Your task to perform on an android device: set an alarm Image 0: 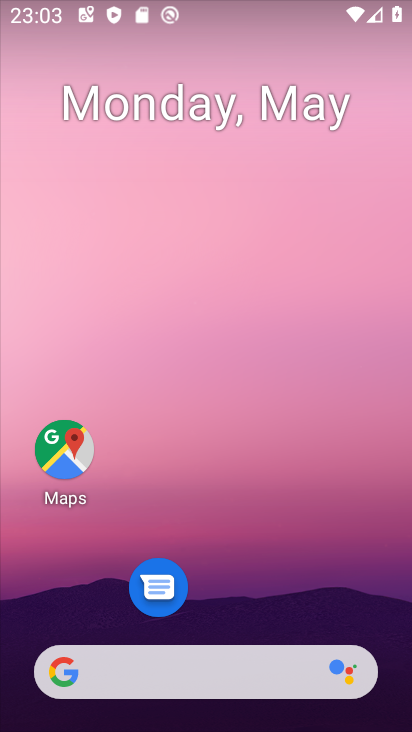
Step 0: drag from (236, 627) to (259, 9)
Your task to perform on an android device: set an alarm Image 1: 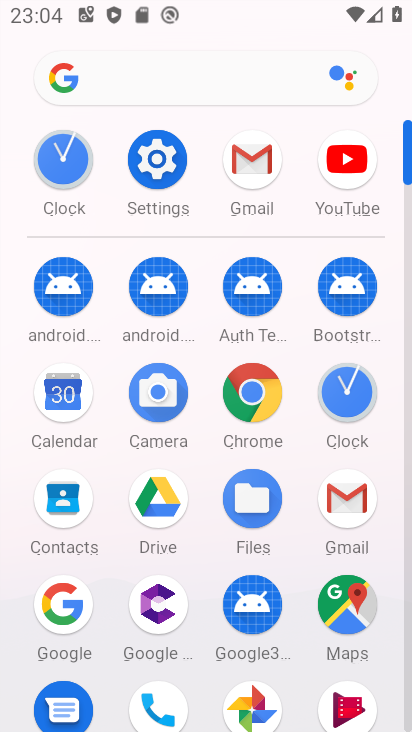
Step 1: click (346, 402)
Your task to perform on an android device: set an alarm Image 2: 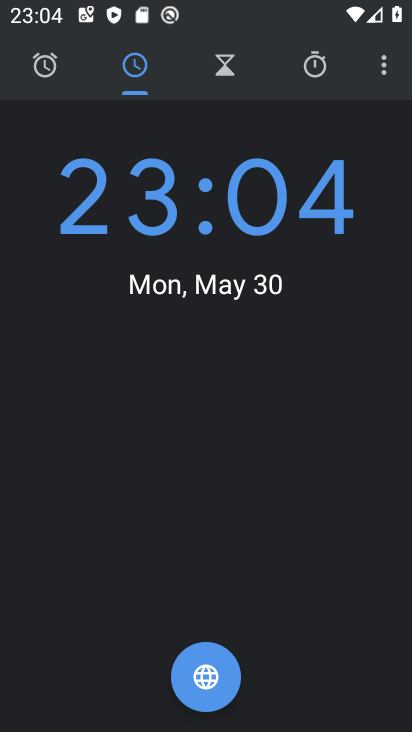
Step 2: click (61, 62)
Your task to perform on an android device: set an alarm Image 3: 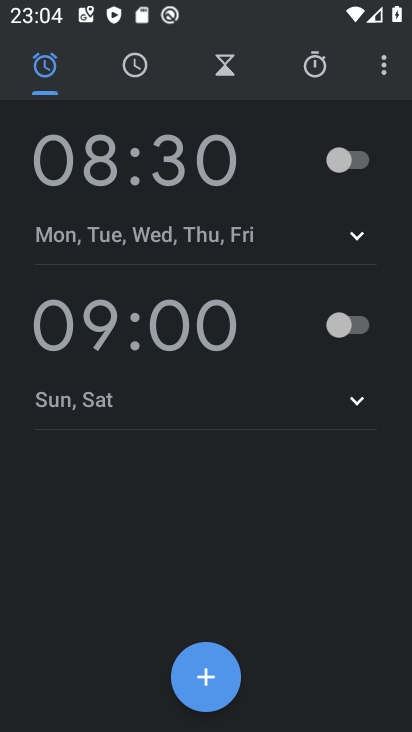
Step 3: click (211, 668)
Your task to perform on an android device: set an alarm Image 4: 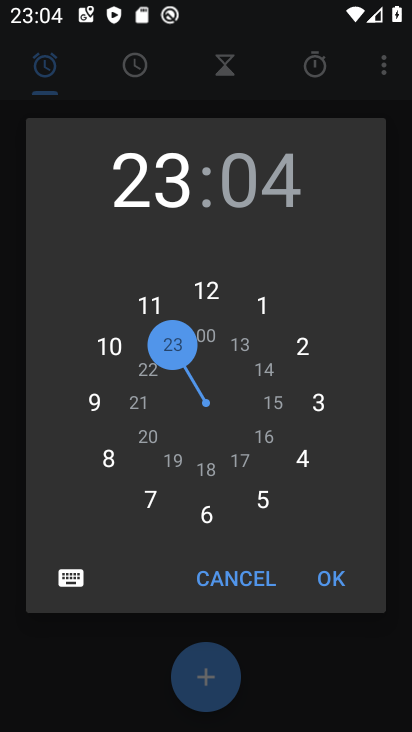
Step 4: click (339, 568)
Your task to perform on an android device: set an alarm Image 5: 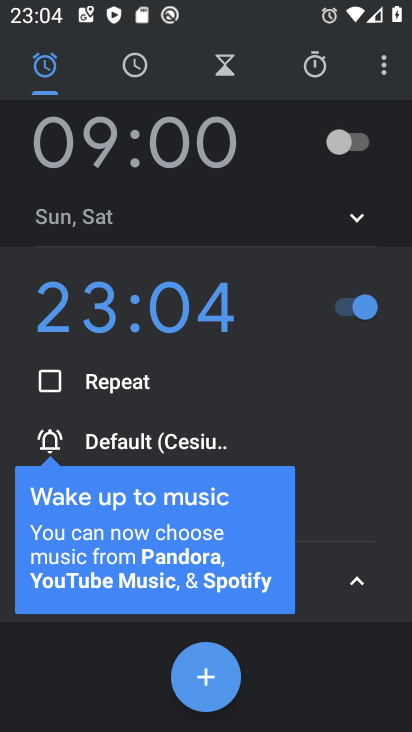
Step 5: task complete